Your task to perform on an android device: Go to ESPN.com Image 0: 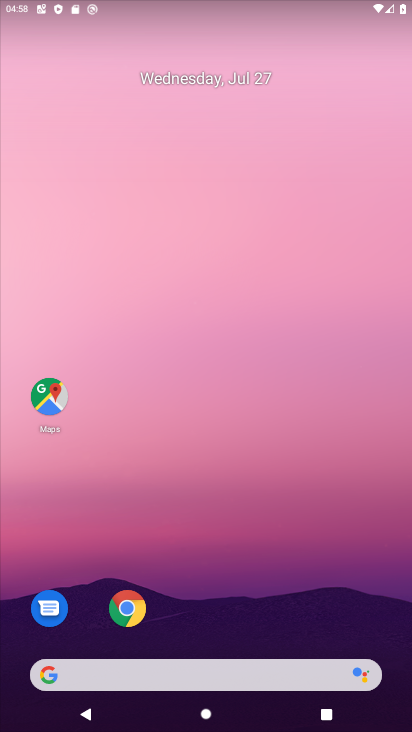
Step 0: press home button
Your task to perform on an android device: Go to ESPN.com Image 1: 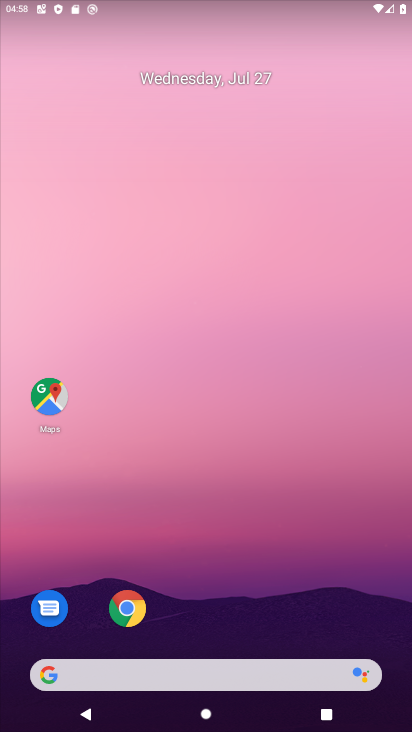
Step 1: click (48, 675)
Your task to perform on an android device: Go to ESPN.com Image 2: 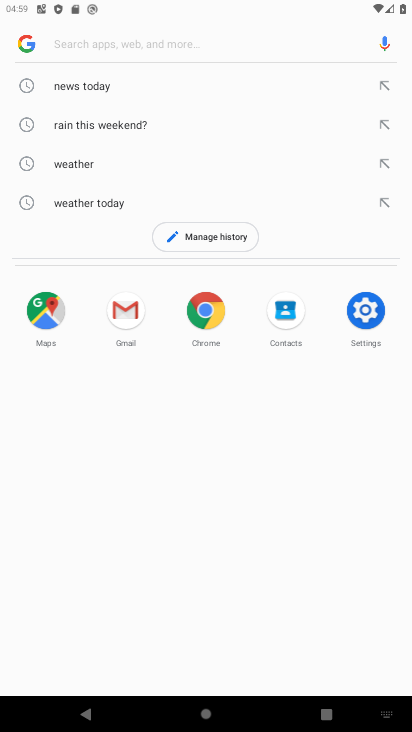
Step 2: click (298, 729)
Your task to perform on an android device: Go to ESPN.com Image 3: 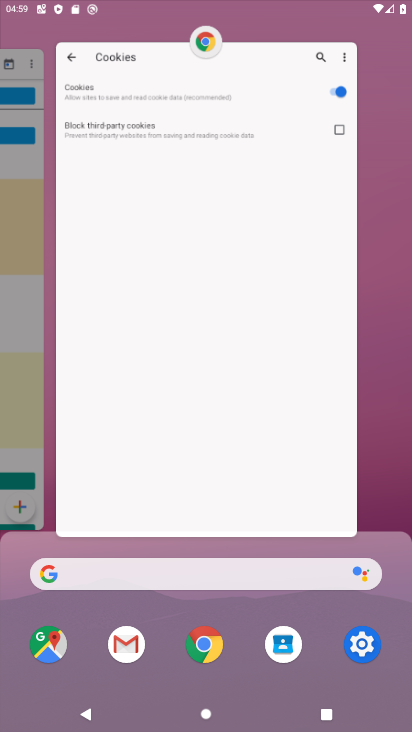
Step 3: click (200, 708)
Your task to perform on an android device: Go to ESPN.com Image 4: 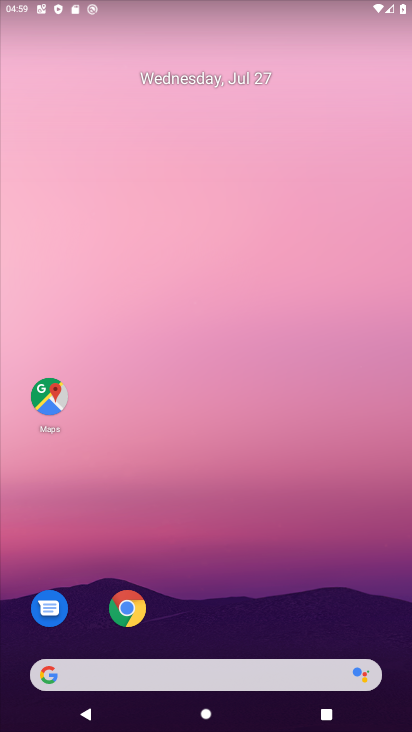
Step 4: click (39, 681)
Your task to perform on an android device: Go to ESPN.com Image 5: 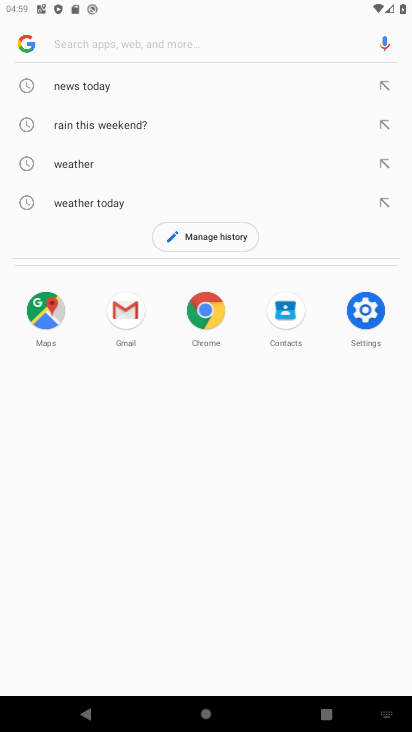
Step 5: drag from (334, 730) to (394, 696)
Your task to perform on an android device: Go to ESPN.com Image 6: 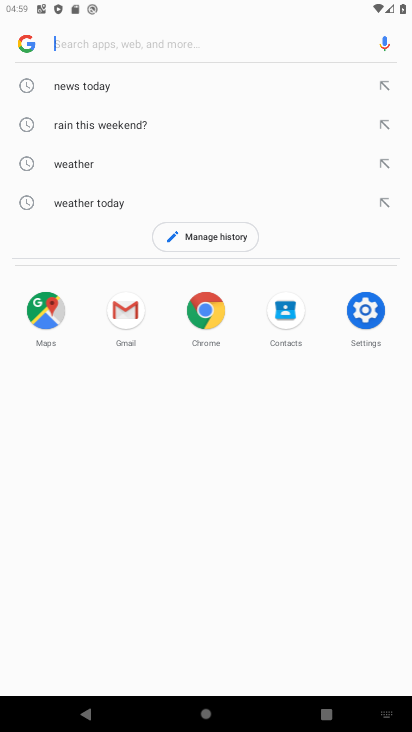
Step 6: press enter
Your task to perform on an android device: Go to ESPN.com Image 7: 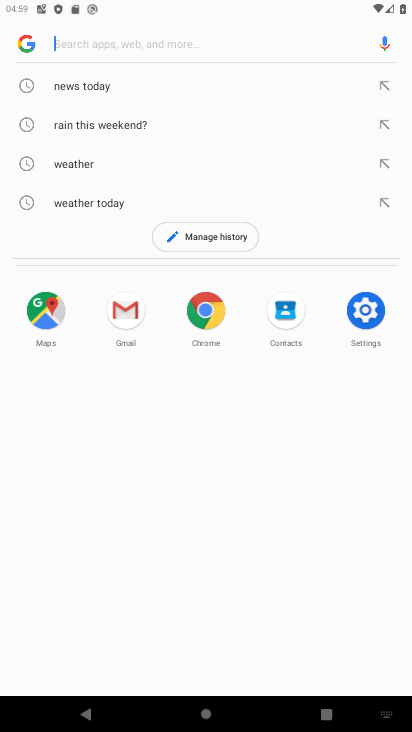
Step 7: type " ESPN.com"
Your task to perform on an android device: Go to ESPN.com Image 8: 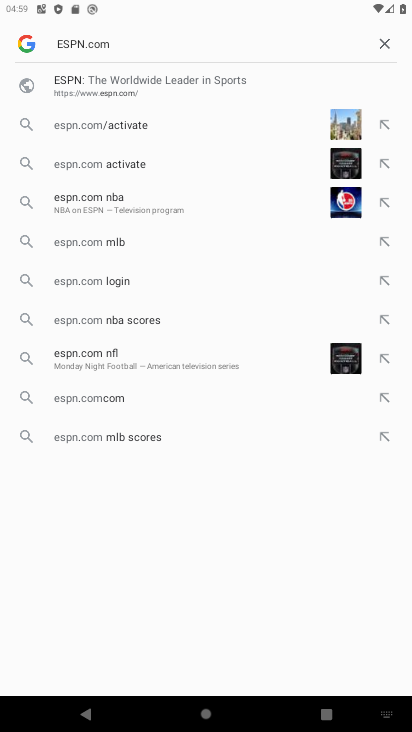
Step 8: click (76, 80)
Your task to perform on an android device: Go to ESPN.com Image 9: 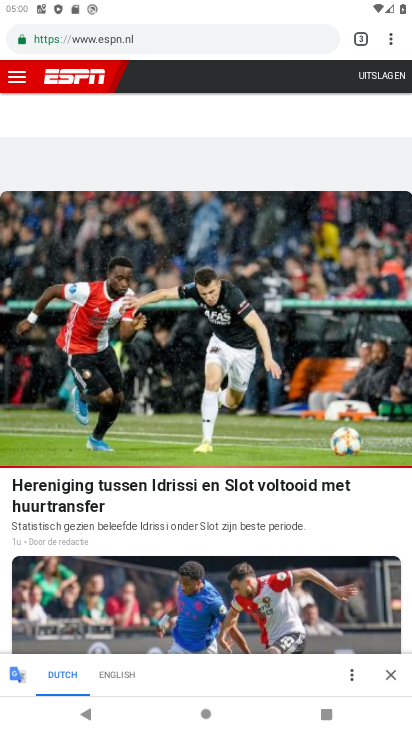
Step 9: task complete